Your task to perform on an android device: Open Wikipedia Image 0: 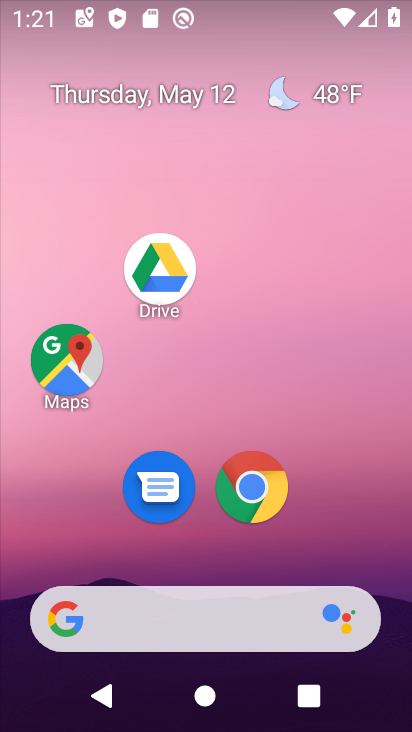
Step 0: drag from (232, 579) to (239, 20)
Your task to perform on an android device: Open Wikipedia Image 1: 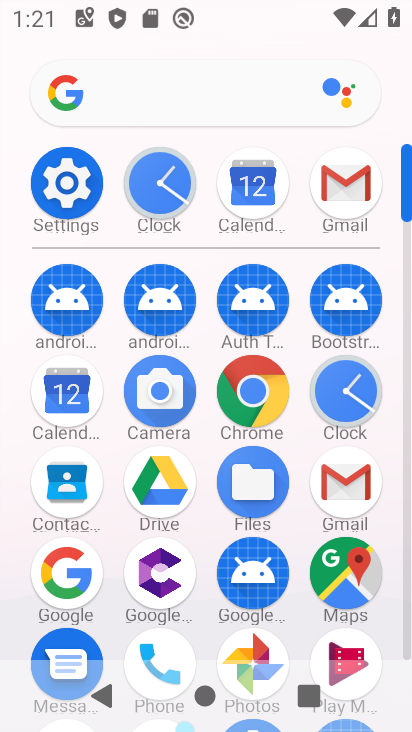
Step 1: click (266, 416)
Your task to perform on an android device: Open Wikipedia Image 2: 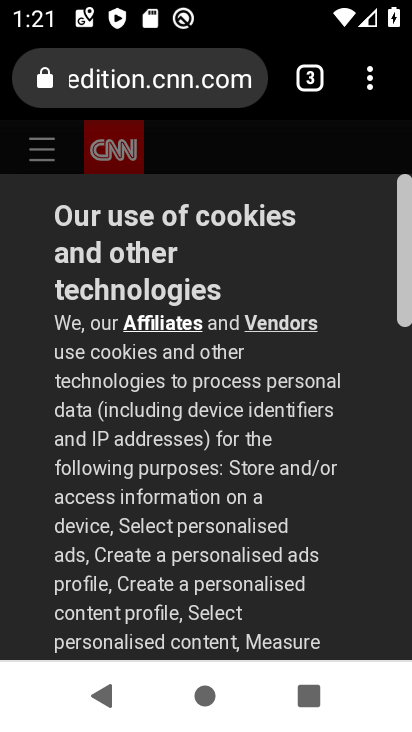
Step 2: click (303, 87)
Your task to perform on an android device: Open Wikipedia Image 3: 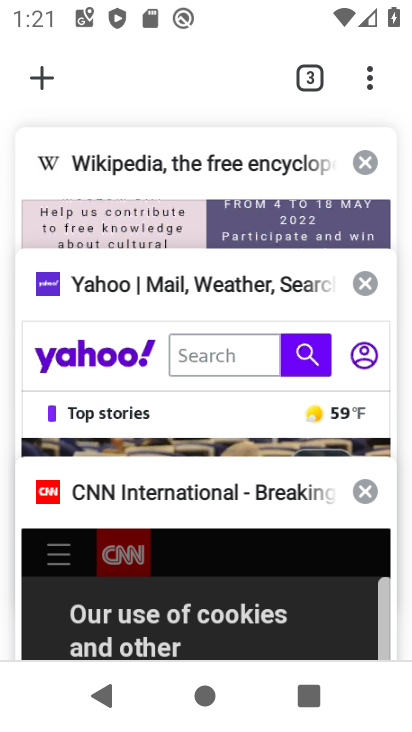
Step 3: click (101, 160)
Your task to perform on an android device: Open Wikipedia Image 4: 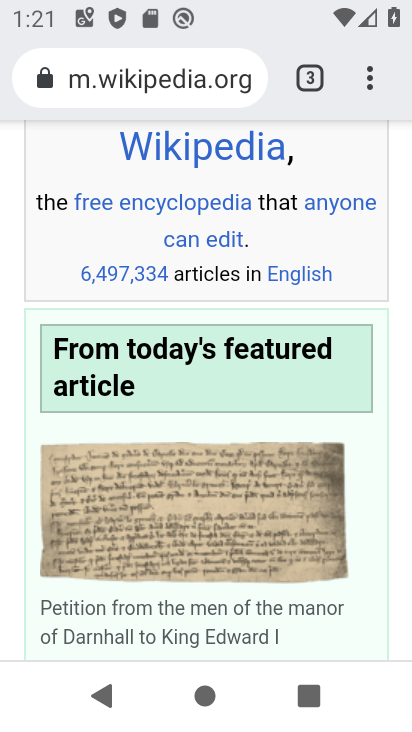
Step 4: task complete